Your task to perform on an android device: Search for "acer nitro" on walmart, select the first entry, and add it to the cart. Image 0: 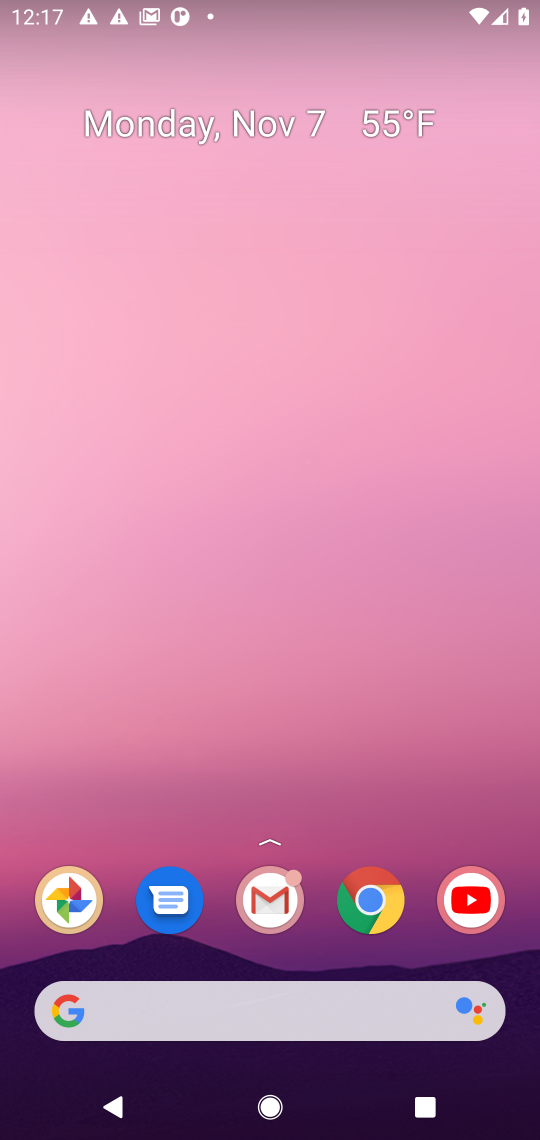
Step 0: click (308, 1017)
Your task to perform on an android device: Search for "acer nitro" on walmart, select the first entry, and add it to the cart. Image 1: 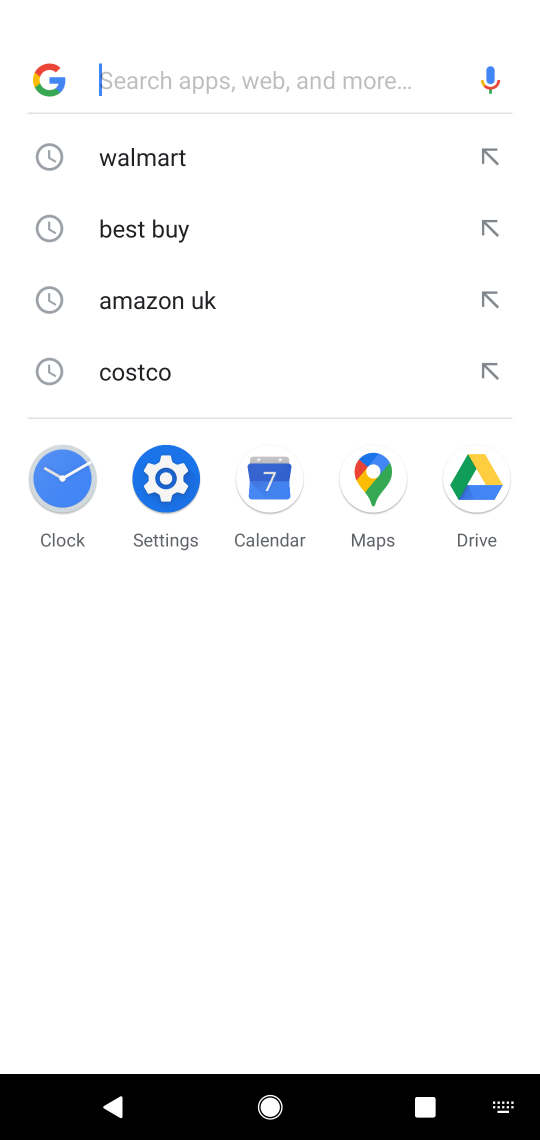
Step 1: click (334, 173)
Your task to perform on an android device: Search for "acer nitro" on walmart, select the first entry, and add it to the cart. Image 2: 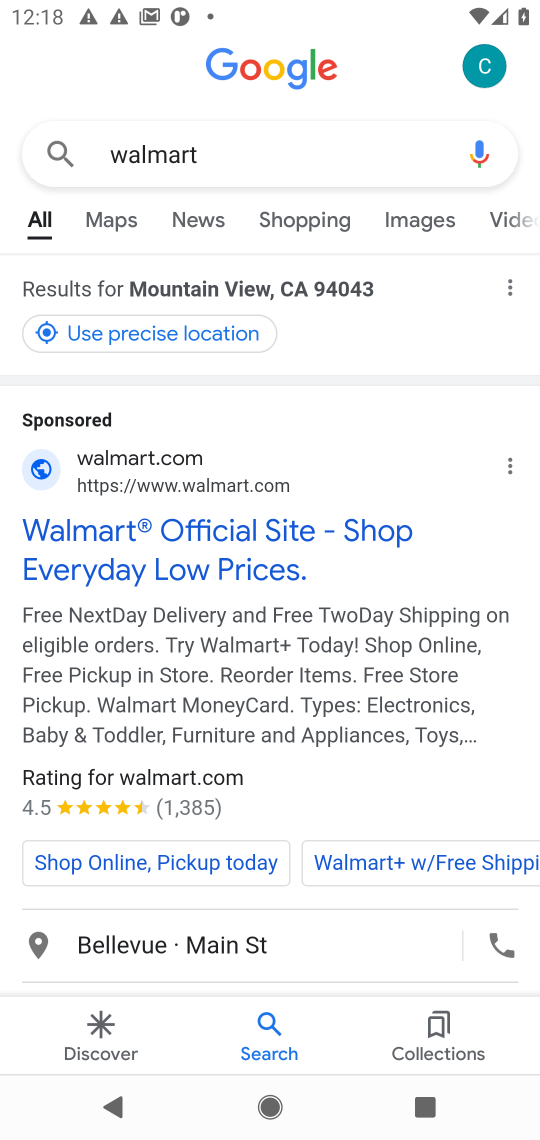
Step 2: click (241, 515)
Your task to perform on an android device: Search for "acer nitro" on walmart, select the first entry, and add it to the cart. Image 3: 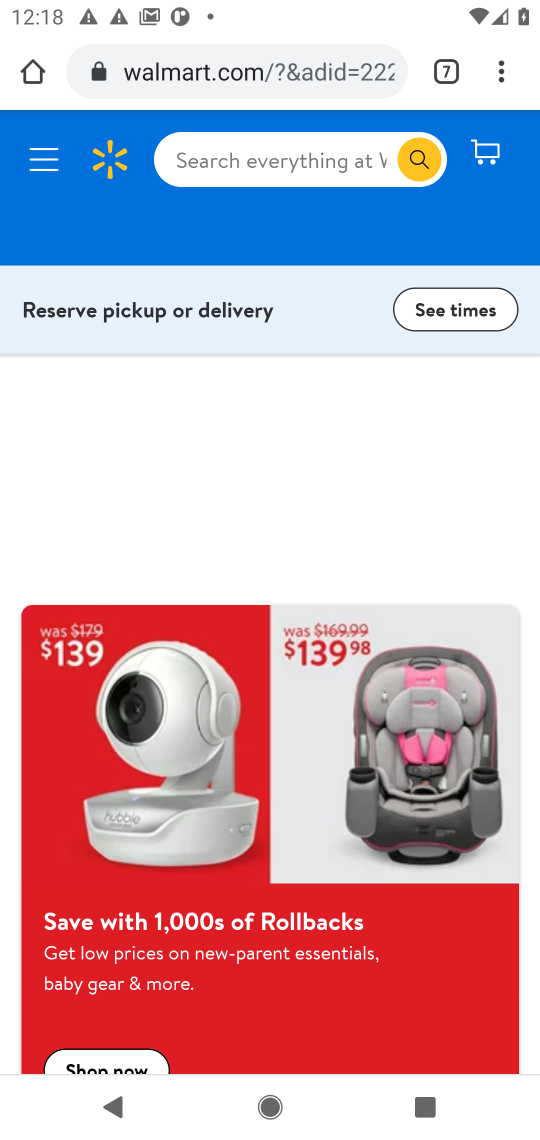
Step 3: task complete